Your task to perform on an android device: turn on bluetooth scan Image 0: 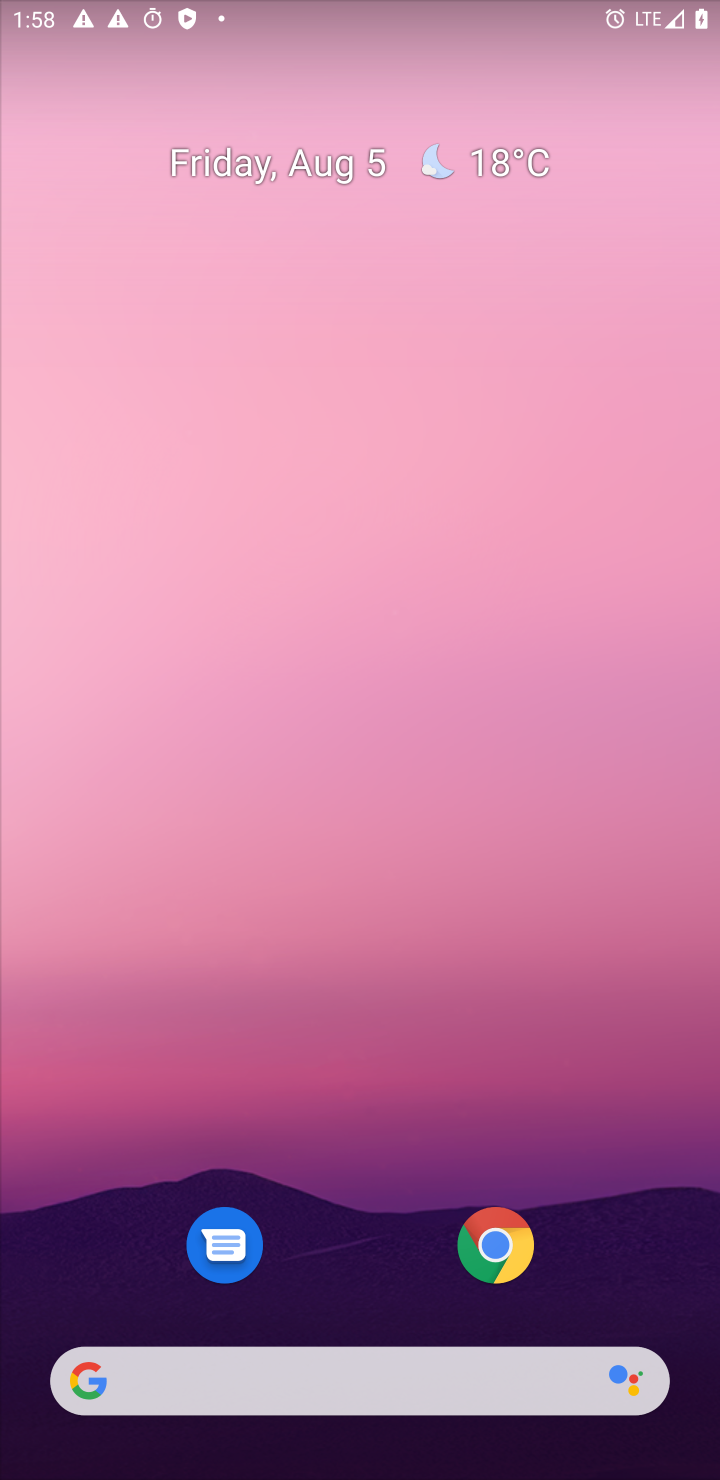
Step 0: press home button
Your task to perform on an android device: turn on bluetooth scan Image 1: 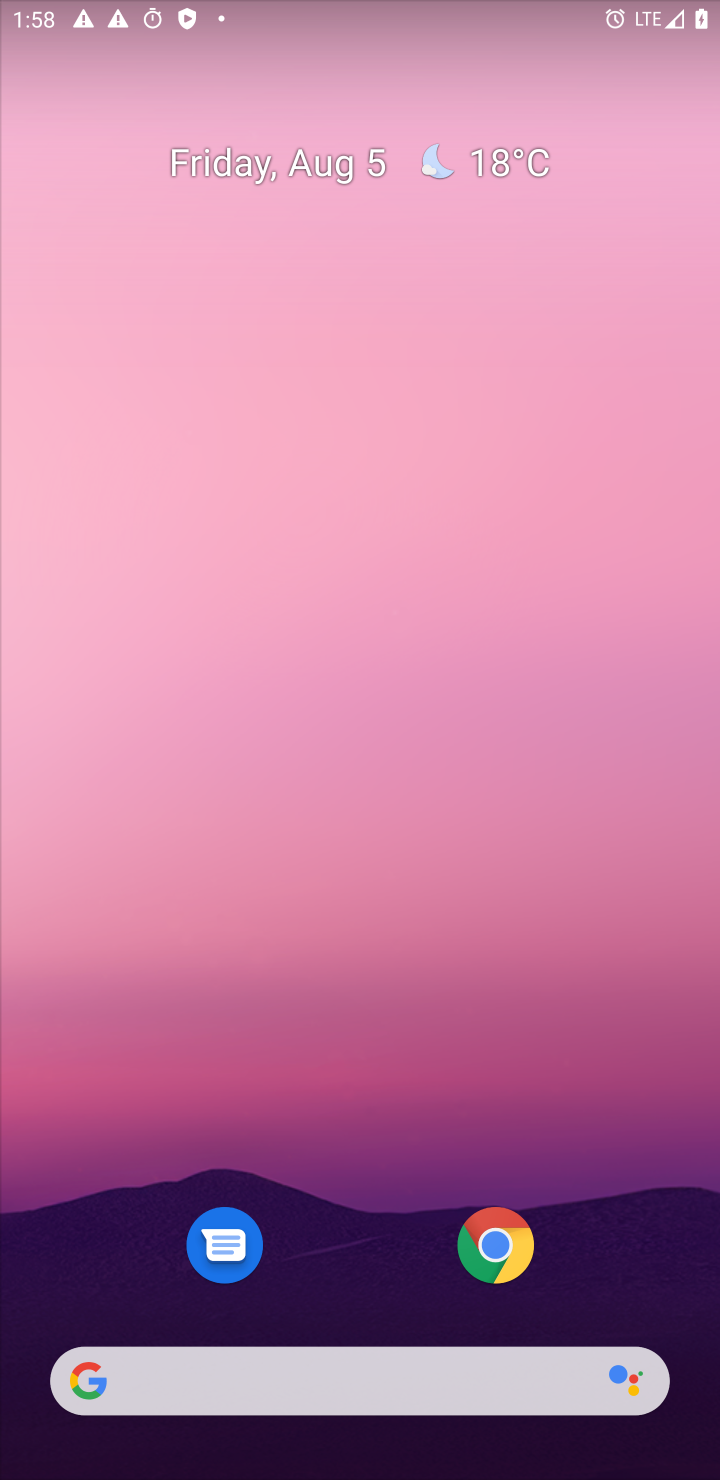
Step 1: drag from (428, 1045) to (504, 241)
Your task to perform on an android device: turn on bluetooth scan Image 2: 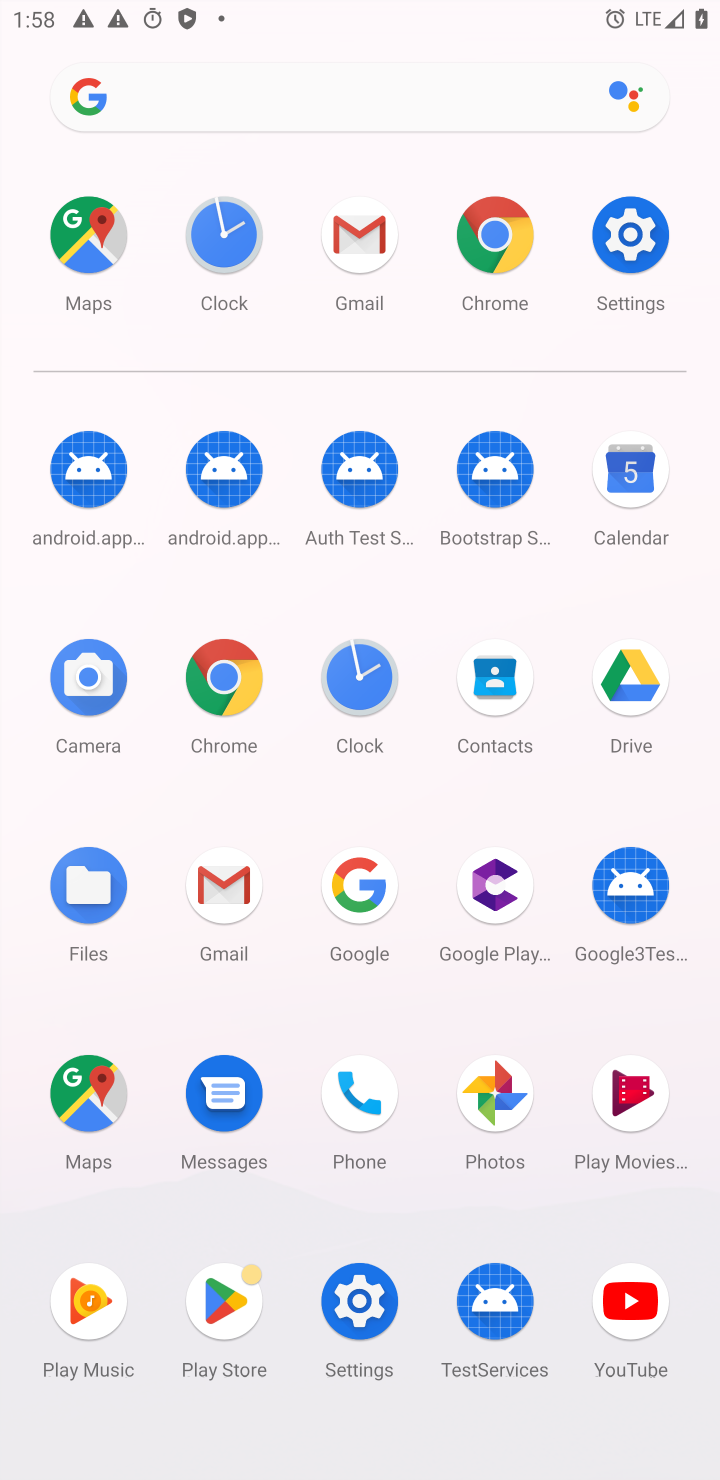
Step 2: click (623, 265)
Your task to perform on an android device: turn on bluetooth scan Image 3: 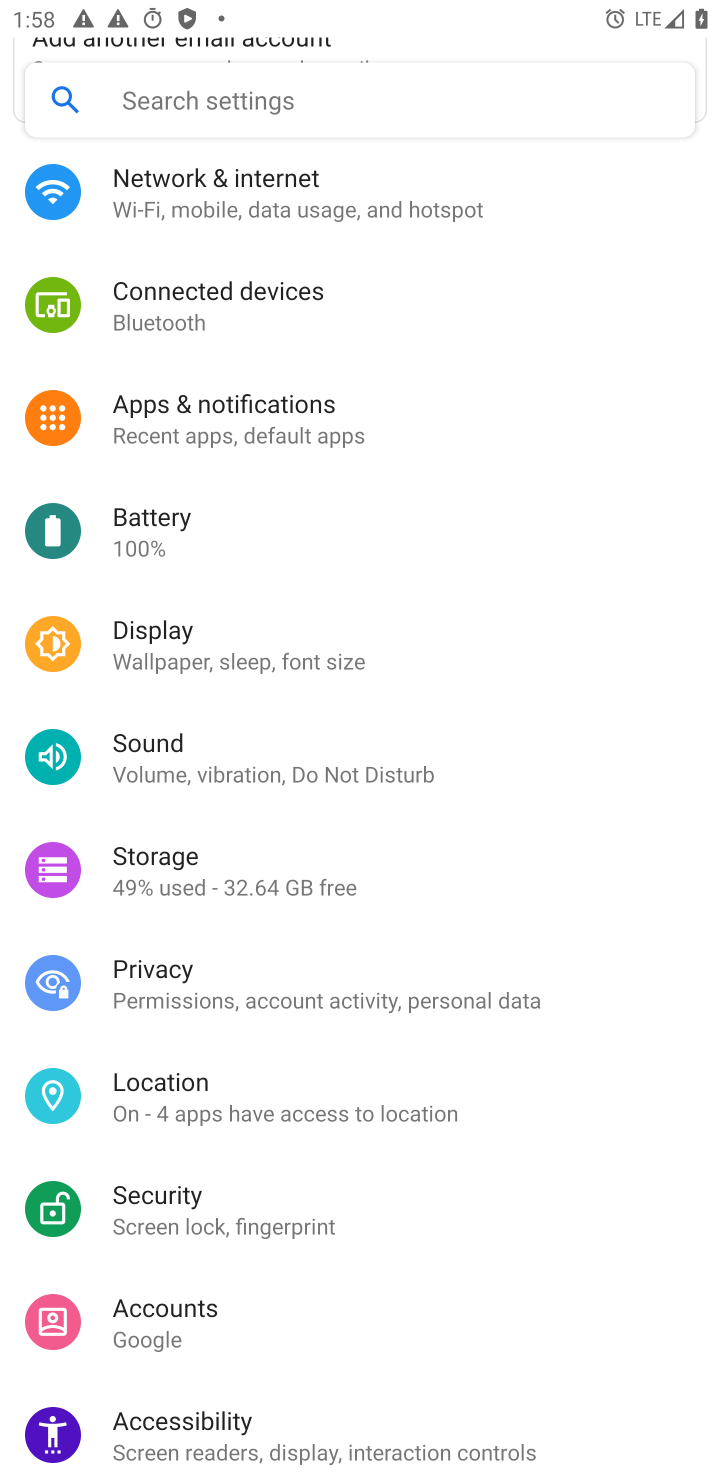
Step 3: drag from (596, 1345) to (610, 628)
Your task to perform on an android device: turn on bluetooth scan Image 4: 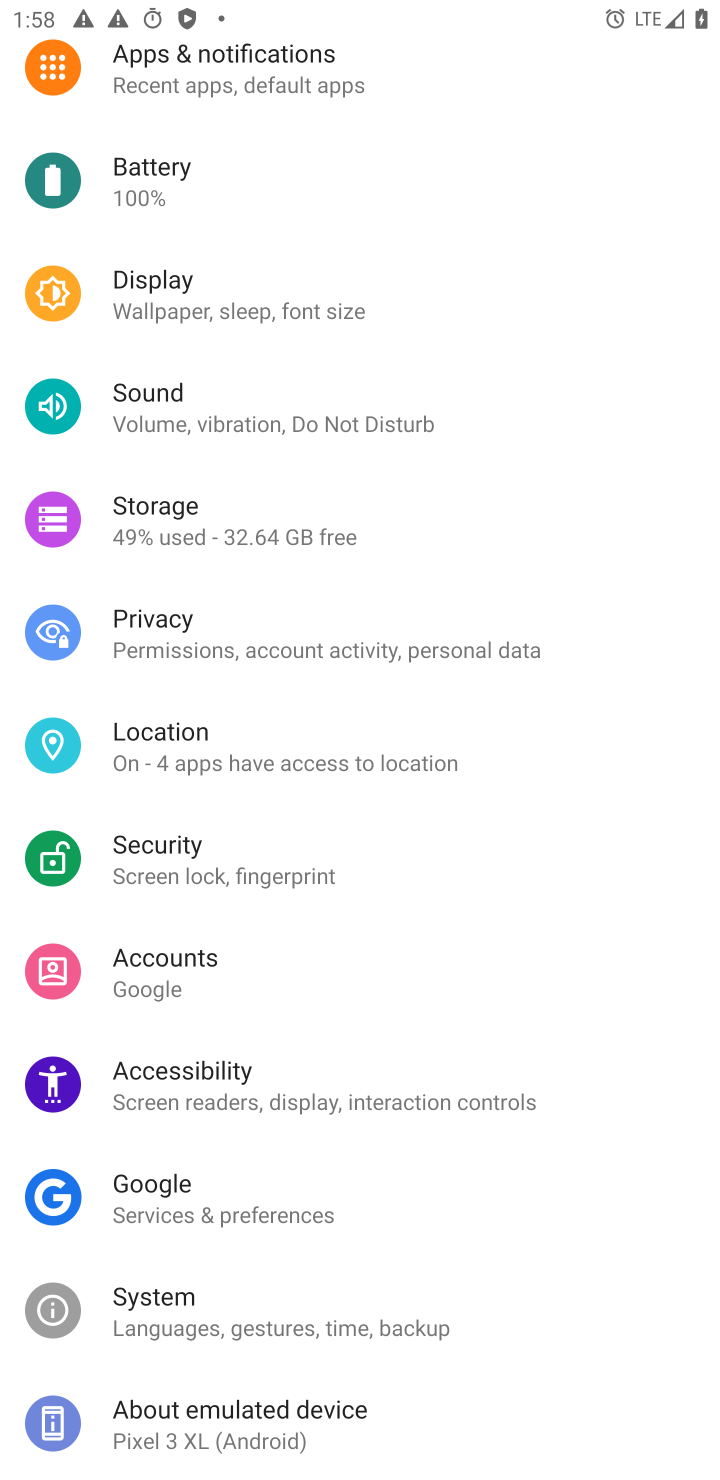
Step 4: click (181, 750)
Your task to perform on an android device: turn on bluetooth scan Image 5: 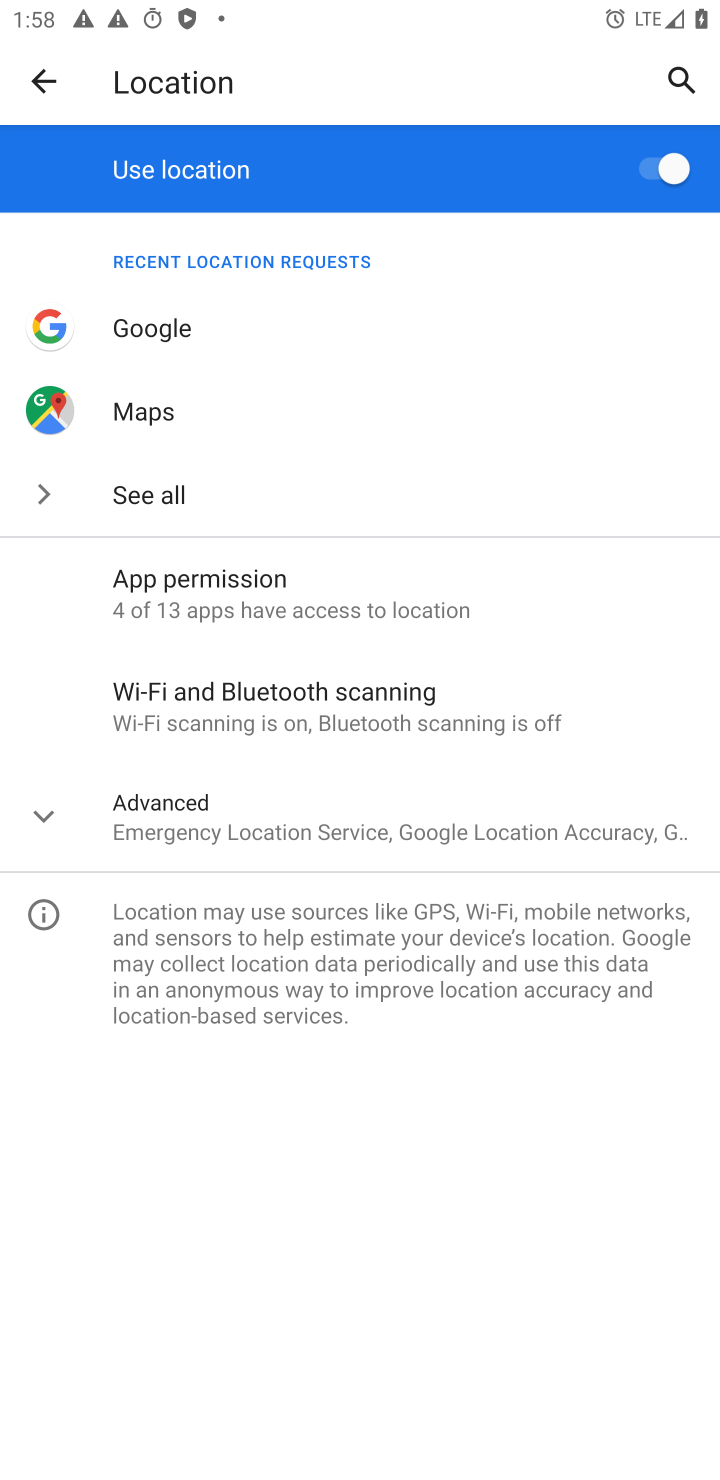
Step 5: click (270, 708)
Your task to perform on an android device: turn on bluetooth scan Image 6: 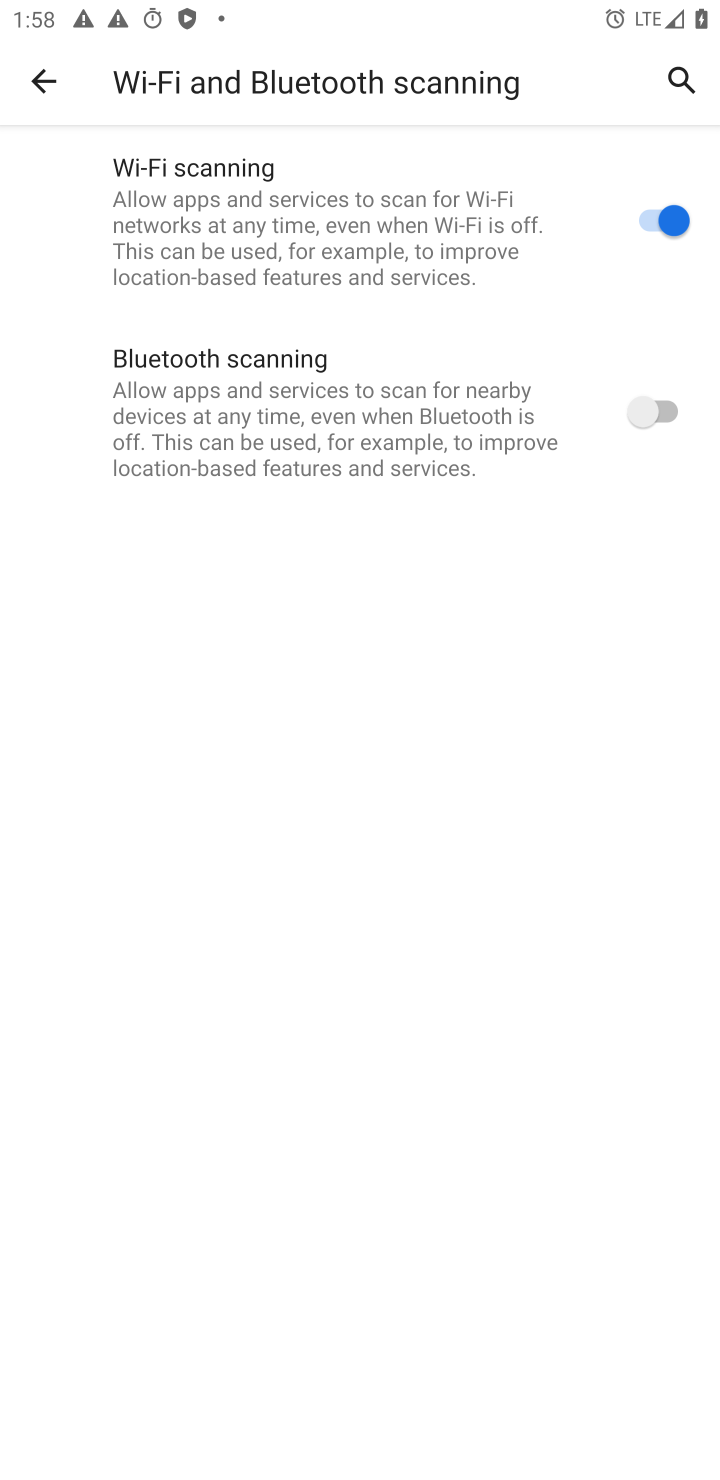
Step 6: click (632, 415)
Your task to perform on an android device: turn on bluetooth scan Image 7: 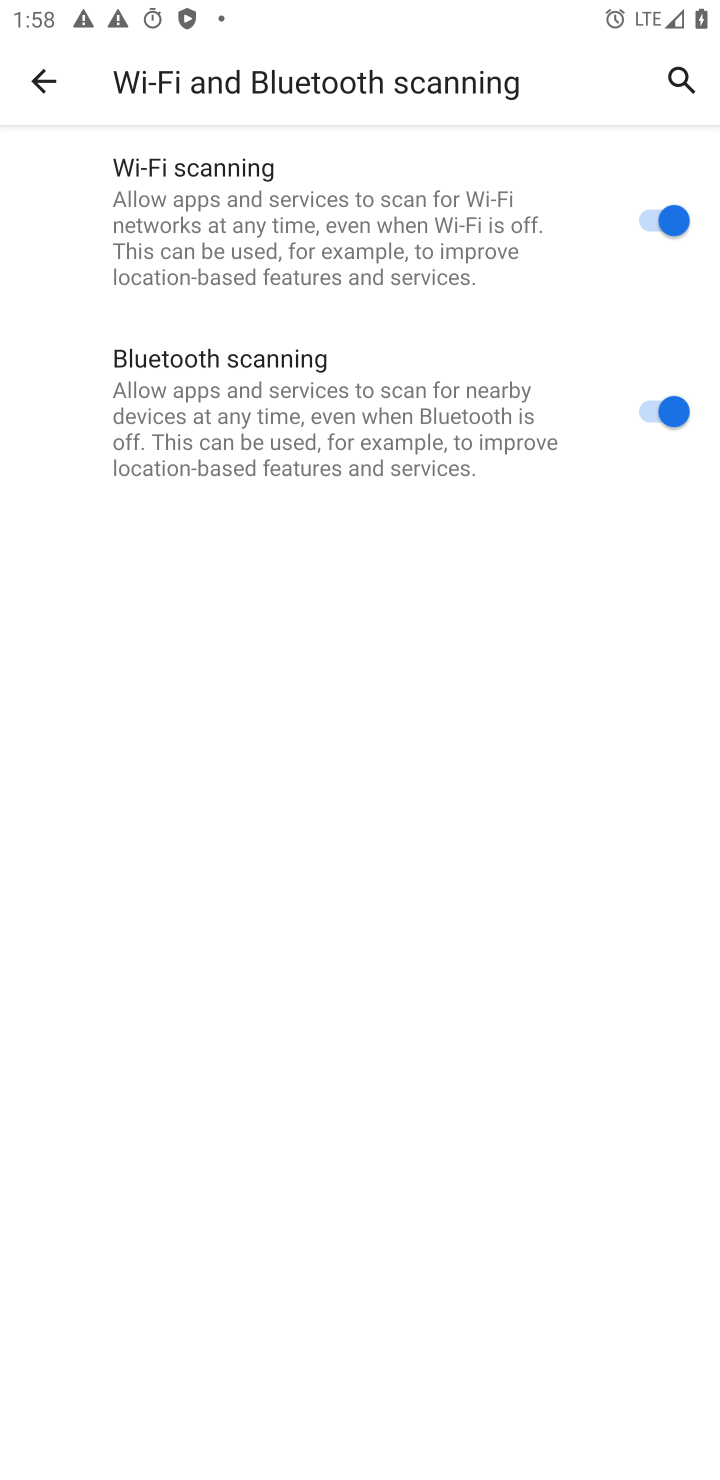
Step 7: task complete